Your task to perform on an android device: Clear all items from cart on ebay. Search for razer blade on ebay, select the first entry, and add it to the cart. Image 0: 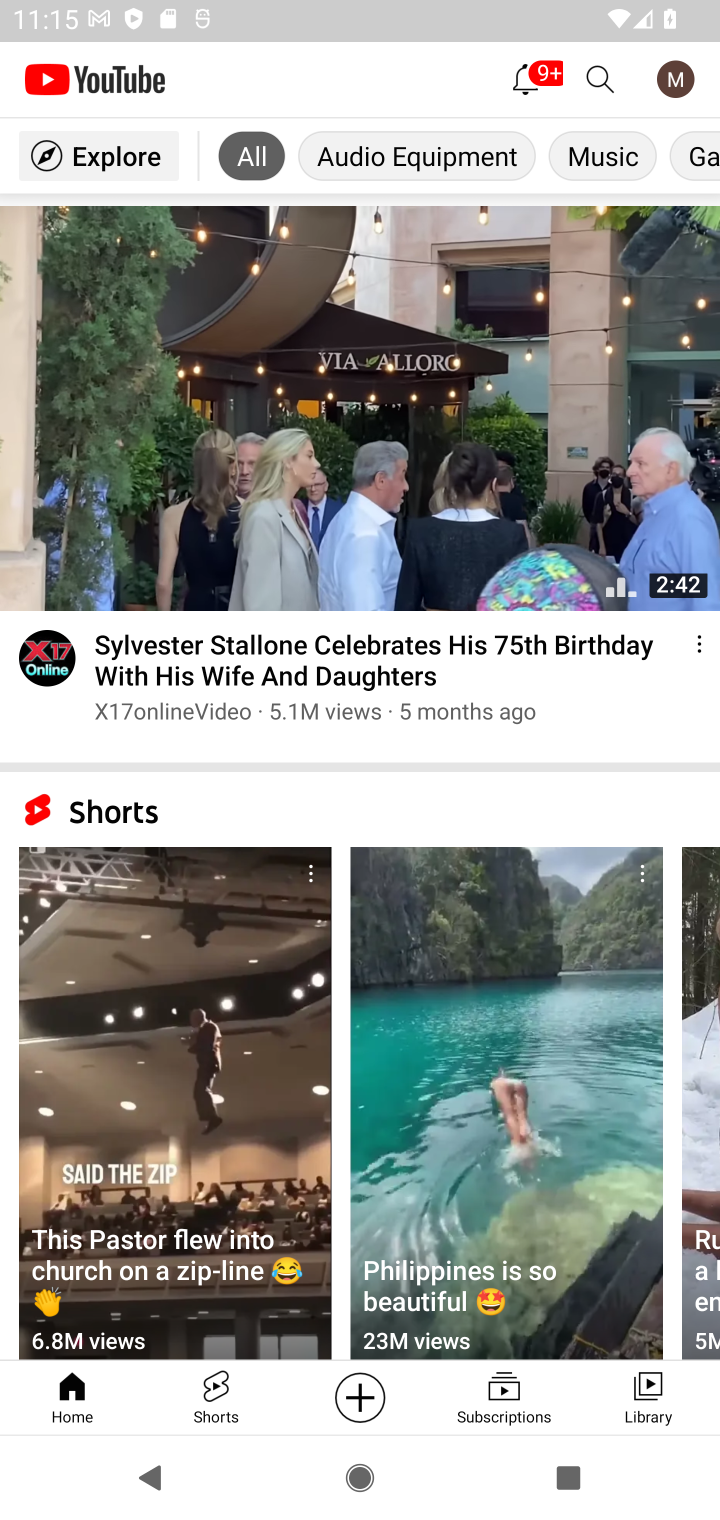
Step 0: press home button
Your task to perform on an android device: Clear all items from cart on ebay. Search for razer blade on ebay, select the first entry, and add it to the cart. Image 1: 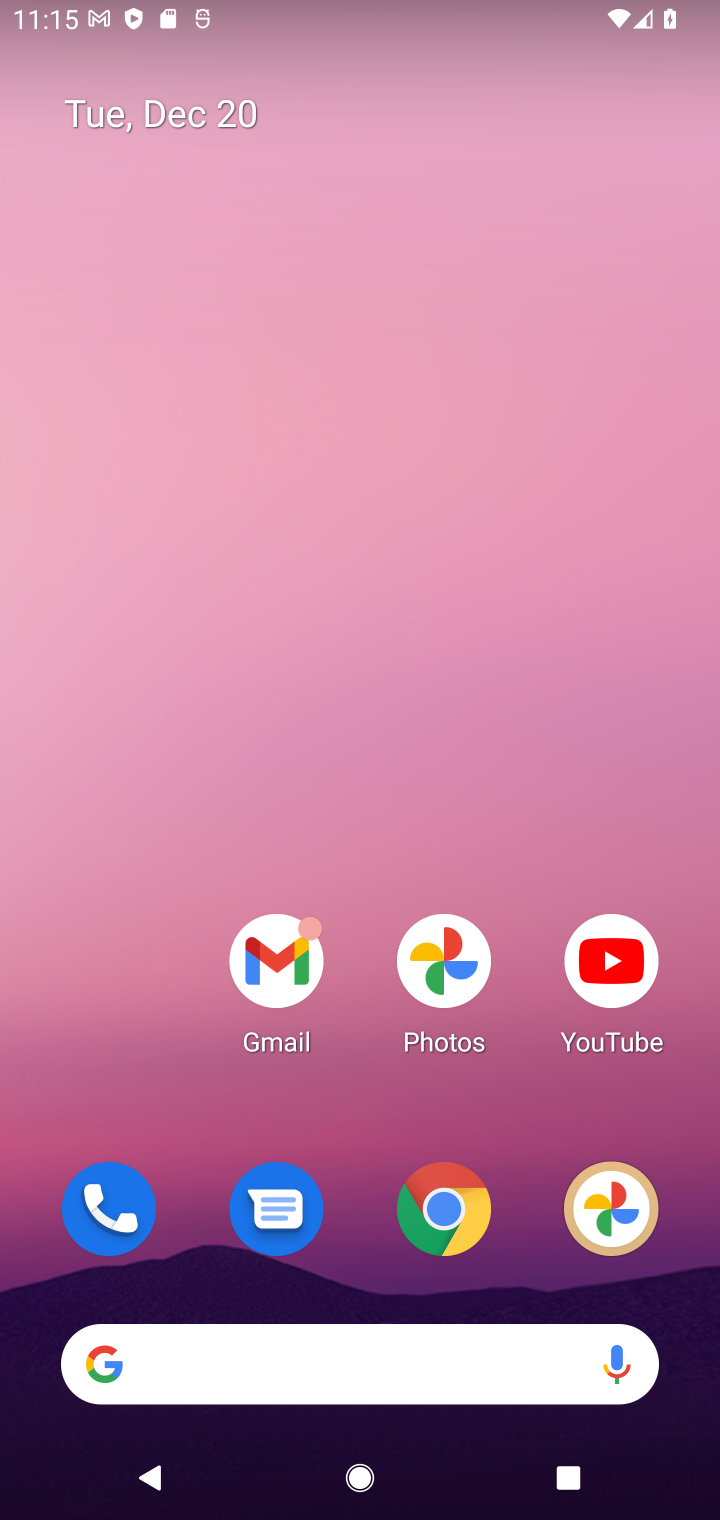
Step 1: click (452, 1211)
Your task to perform on an android device: Clear all items from cart on ebay. Search for razer blade on ebay, select the first entry, and add it to the cart. Image 2: 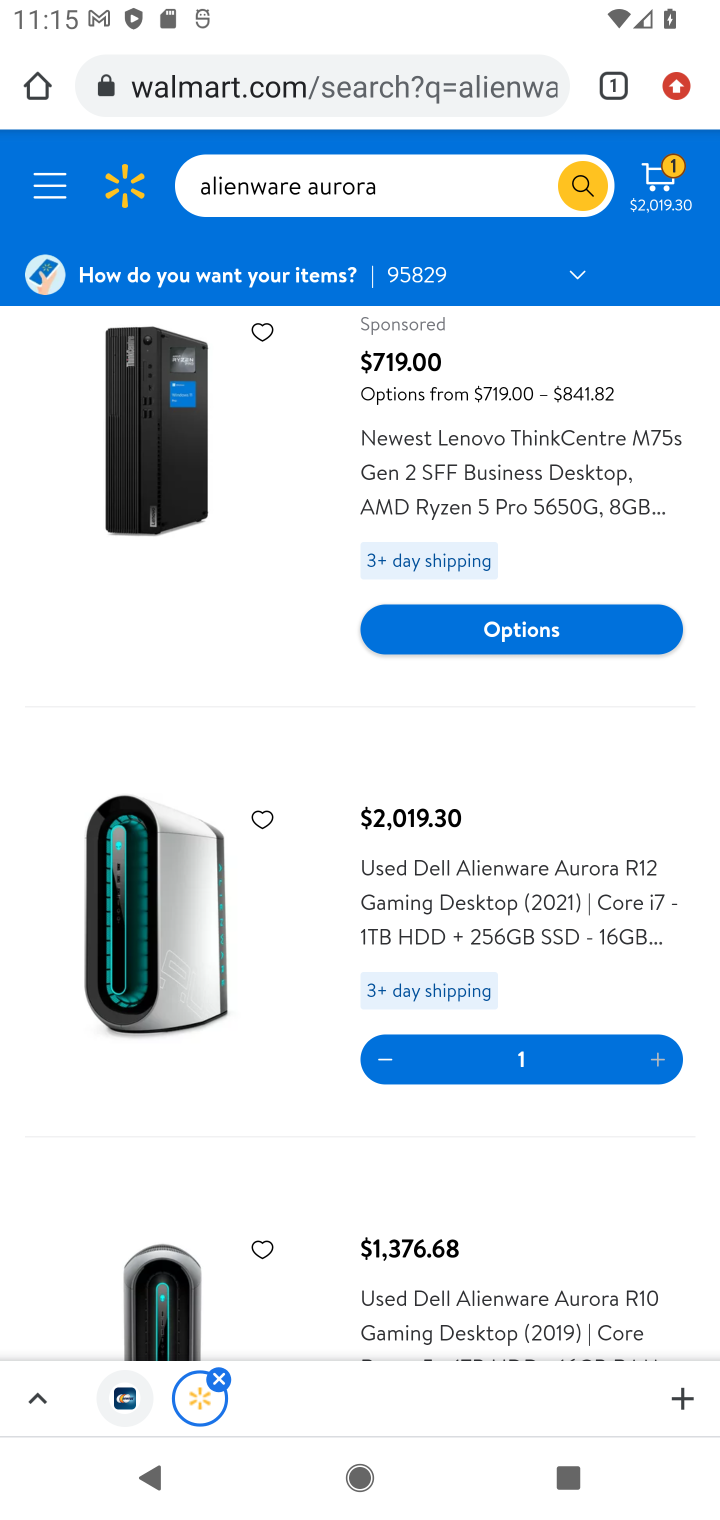
Step 2: click (274, 103)
Your task to perform on an android device: Clear all items from cart on ebay. Search for razer blade on ebay, select the first entry, and add it to the cart. Image 3: 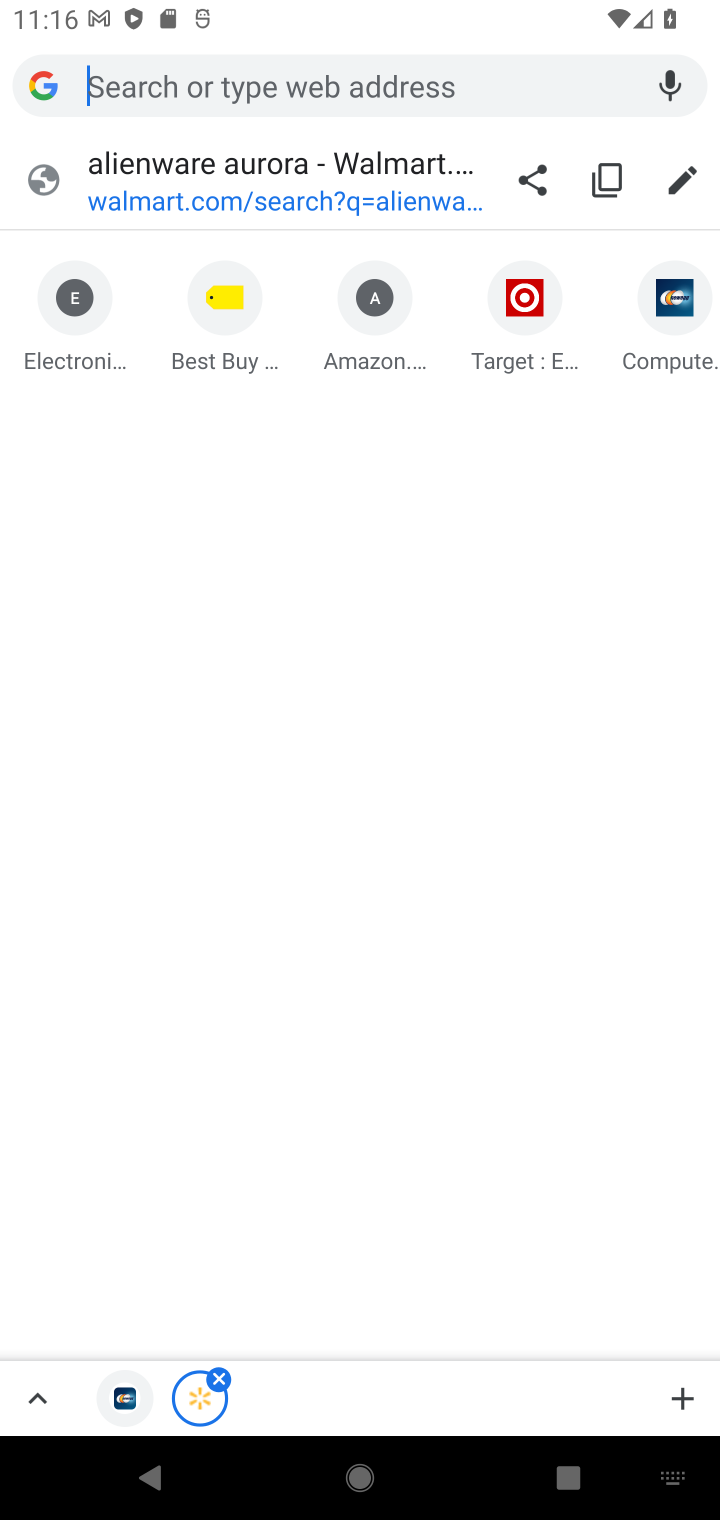
Step 3: type "ebay.com"
Your task to perform on an android device: Clear all items from cart on ebay. Search for razer blade on ebay, select the first entry, and add it to the cart. Image 4: 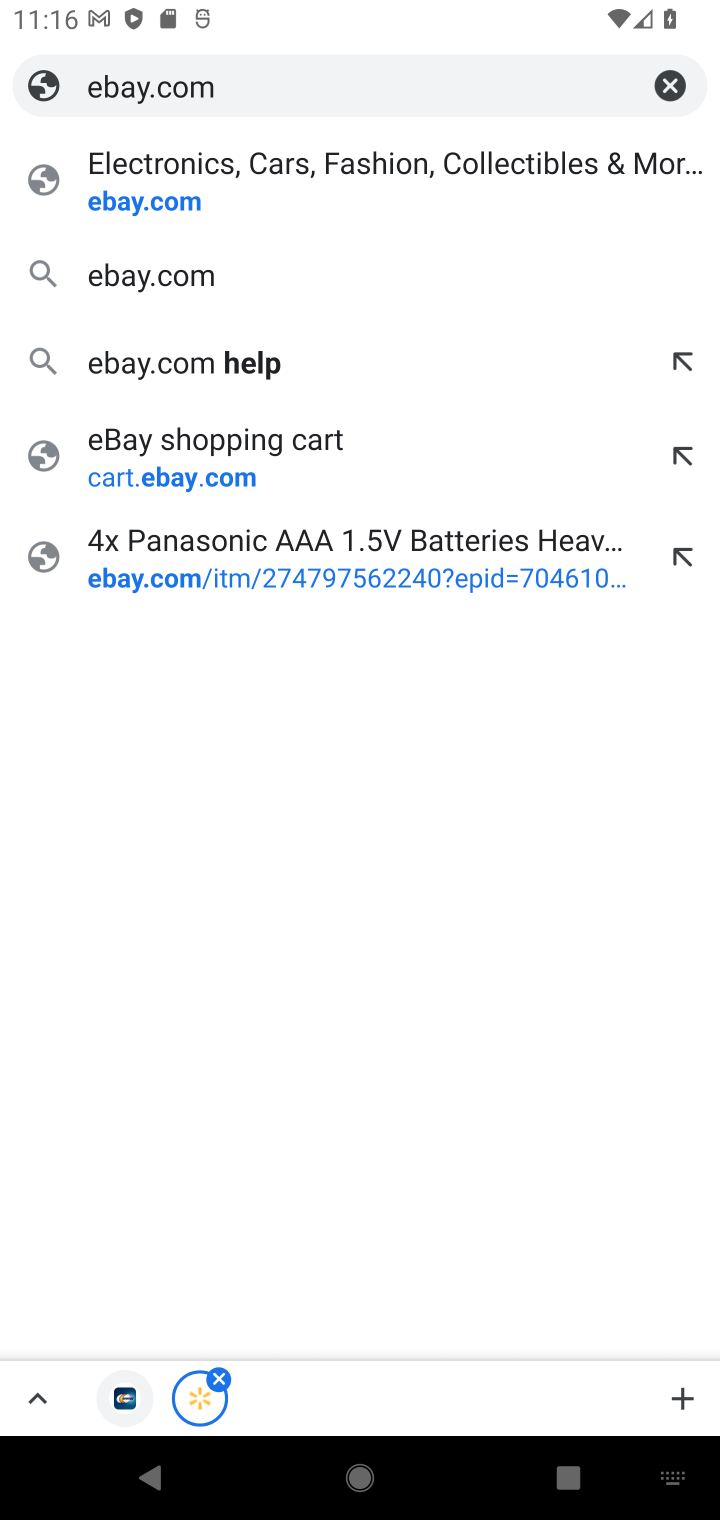
Step 4: click (177, 195)
Your task to perform on an android device: Clear all items from cart on ebay. Search for razer blade on ebay, select the first entry, and add it to the cart. Image 5: 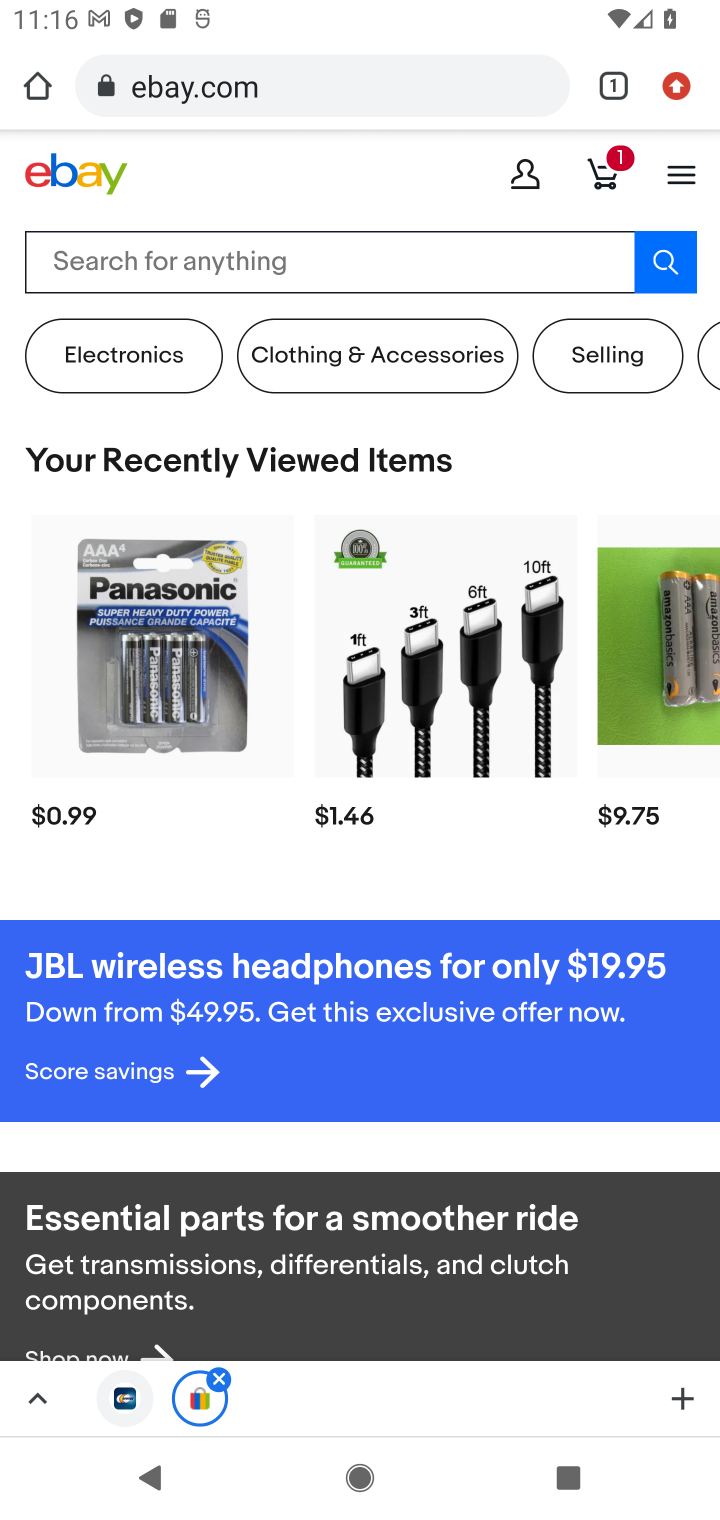
Step 5: click (607, 177)
Your task to perform on an android device: Clear all items from cart on ebay. Search for razer blade on ebay, select the first entry, and add it to the cart. Image 6: 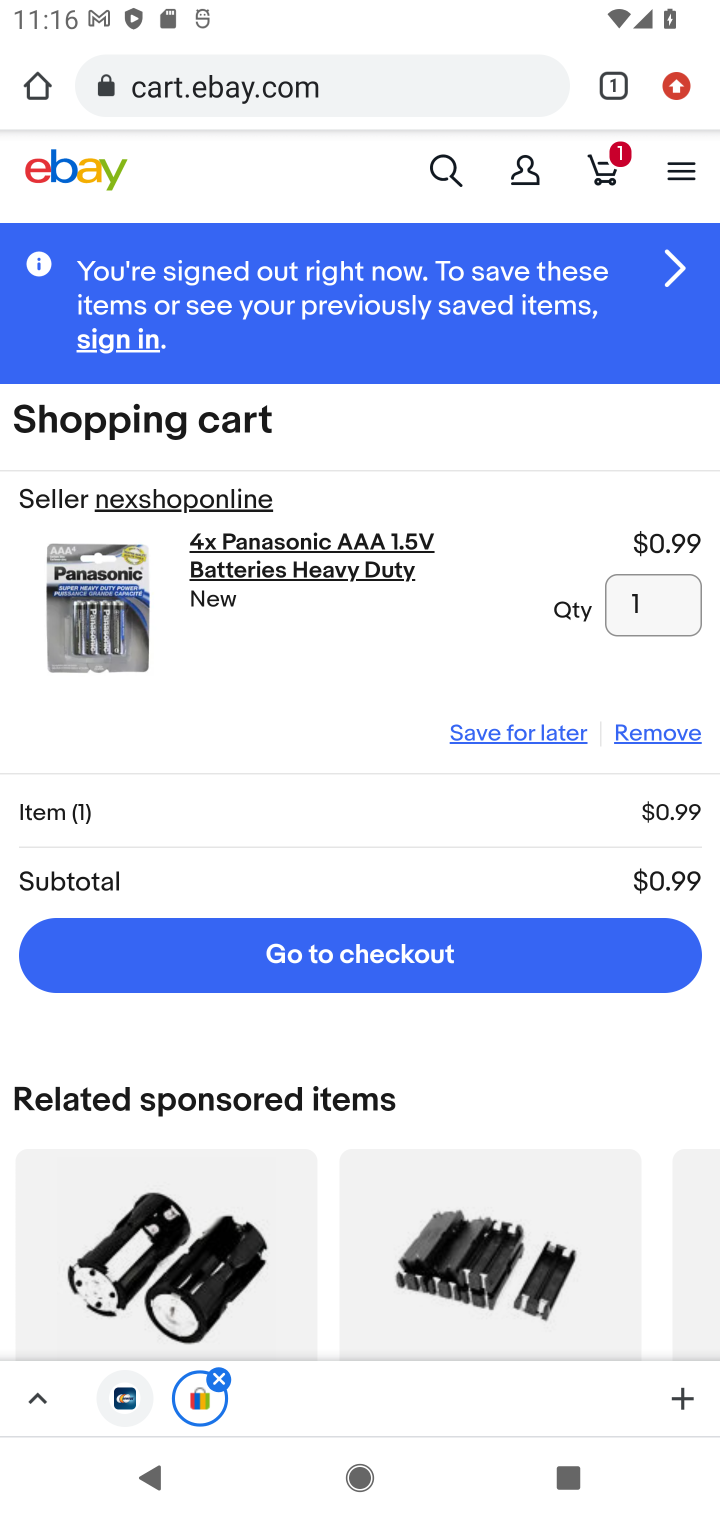
Step 6: click (635, 737)
Your task to perform on an android device: Clear all items from cart on ebay. Search for razer blade on ebay, select the first entry, and add it to the cart. Image 7: 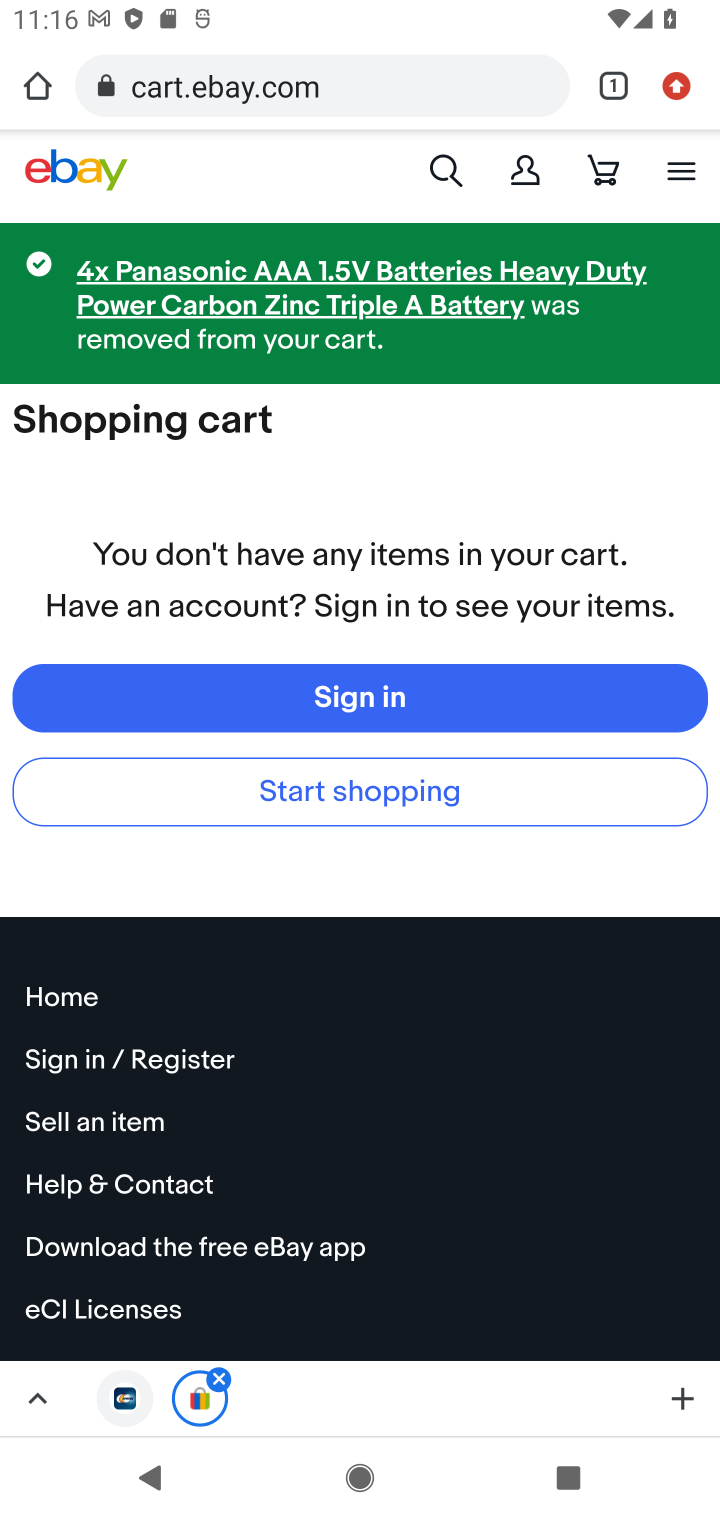
Step 7: click (445, 170)
Your task to perform on an android device: Clear all items from cart on ebay. Search for razer blade on ebay, select the first entry, and add it to the cart. Image 8: 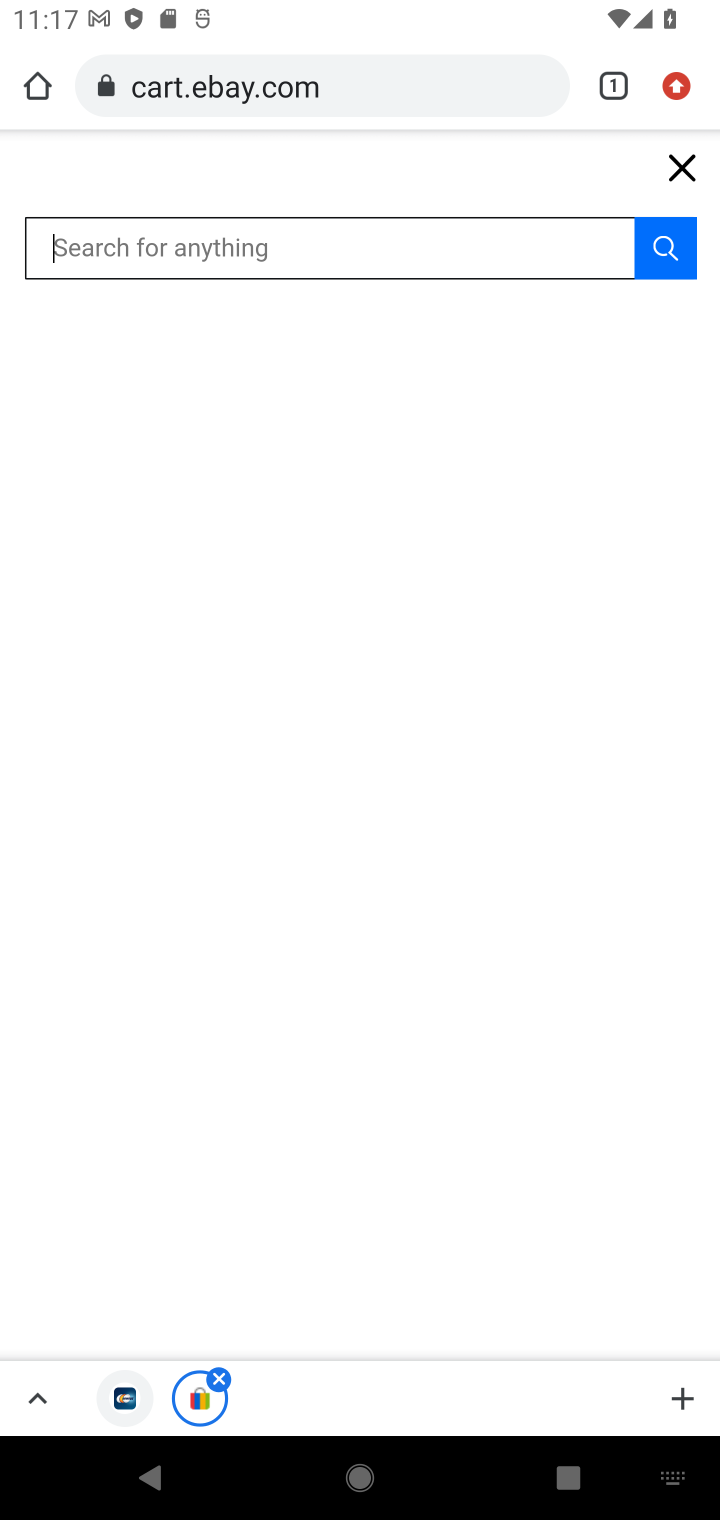
Step 8: type "razer blade "
Your task to perform on an android device: Clear all items from cart on ebay. Search for razer blade on ebay, select the first entry, and add it to the cart. Image 9: 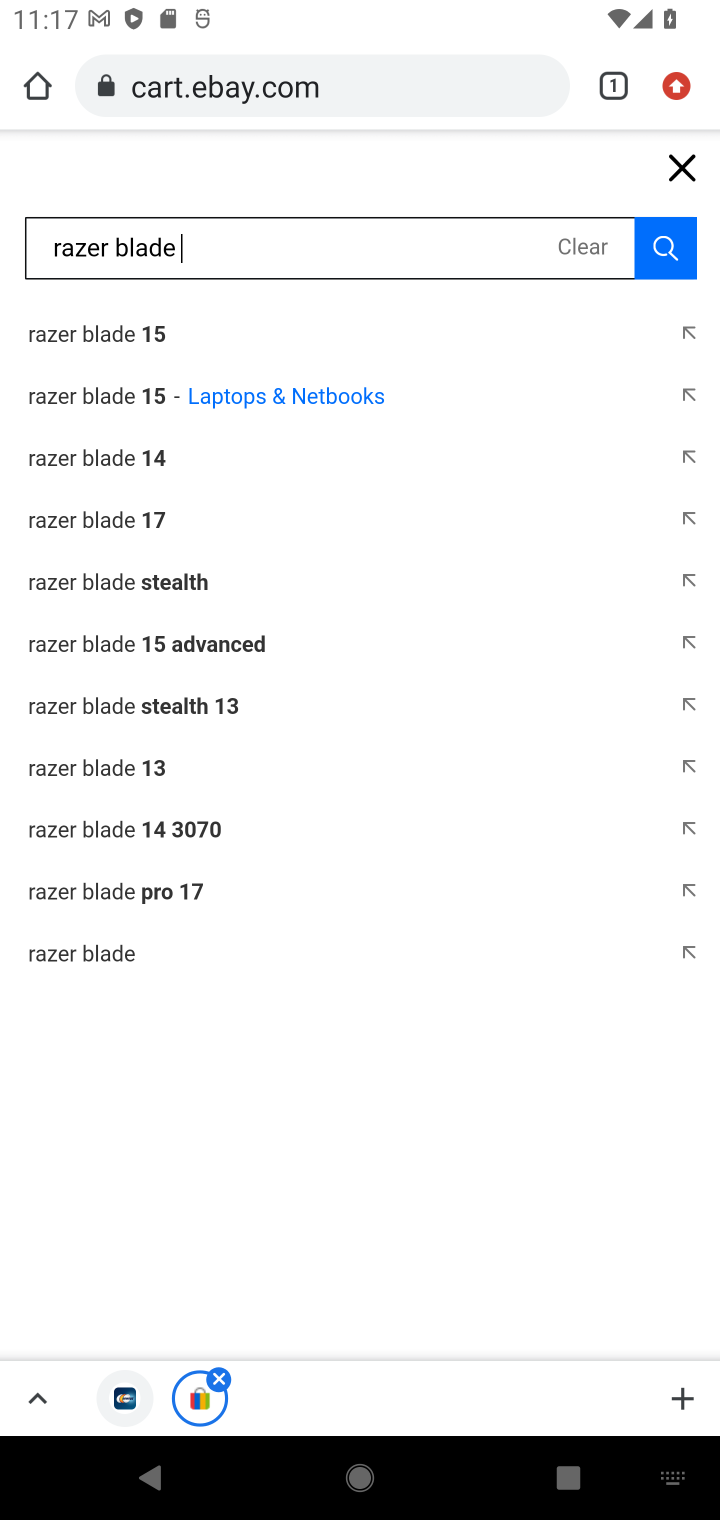
Step 9: click (665, 250)
Your task to perform on an android device: Clear all items from cart on ebay. Search for razer blade on ebay, select the first entry, and add it to the cart. Image 10: 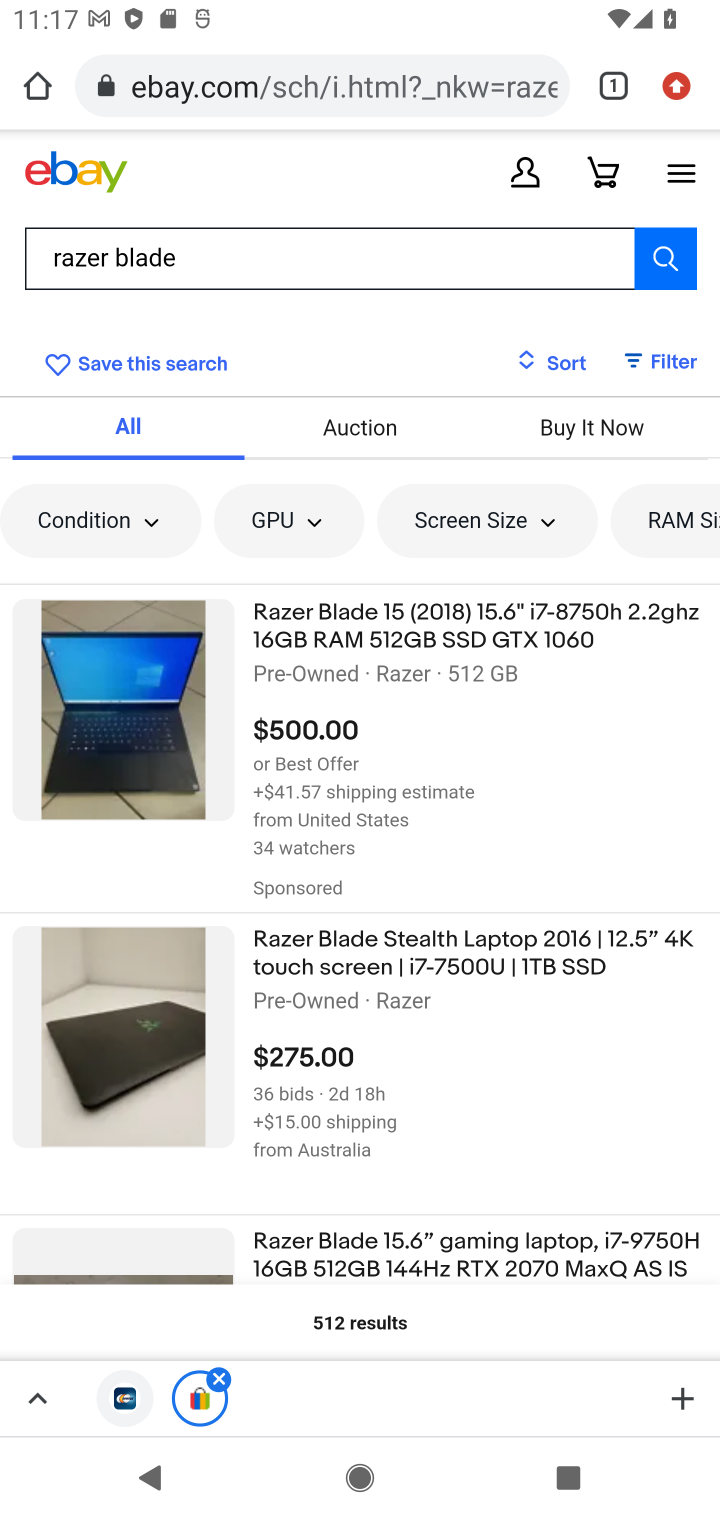
Step 10: click (283, 645)
Your task to perform on an android device: Clear all items from cart on ebay. Search for razer blade on ebay, select the first entry, and add it to the cart. Image 11: 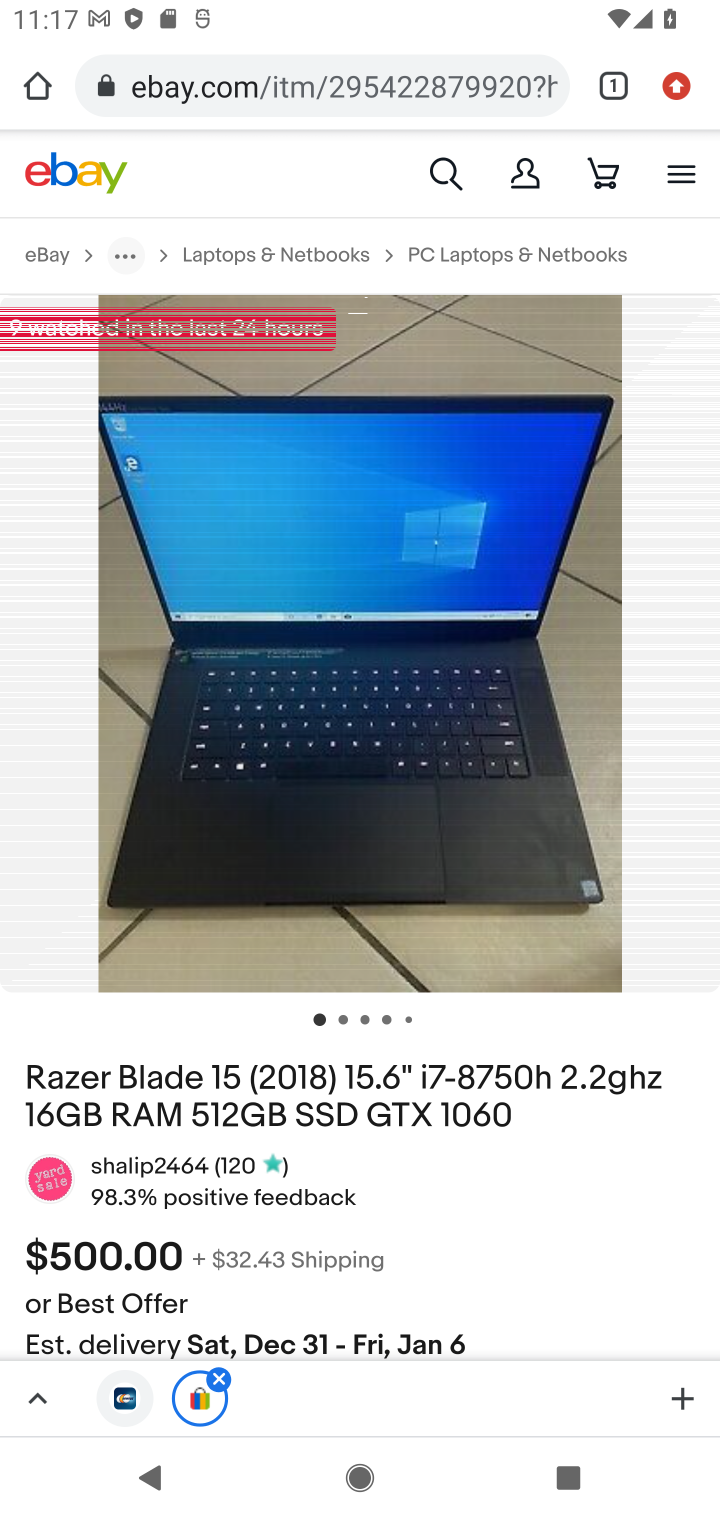
Step 11: drag from (380, 1261) to (333, 609)
Your task to perform on an android device: Clear all items from cart on ebay. Search for razer blade on ebay, select the first entry, and add it to the cart. Image 12: 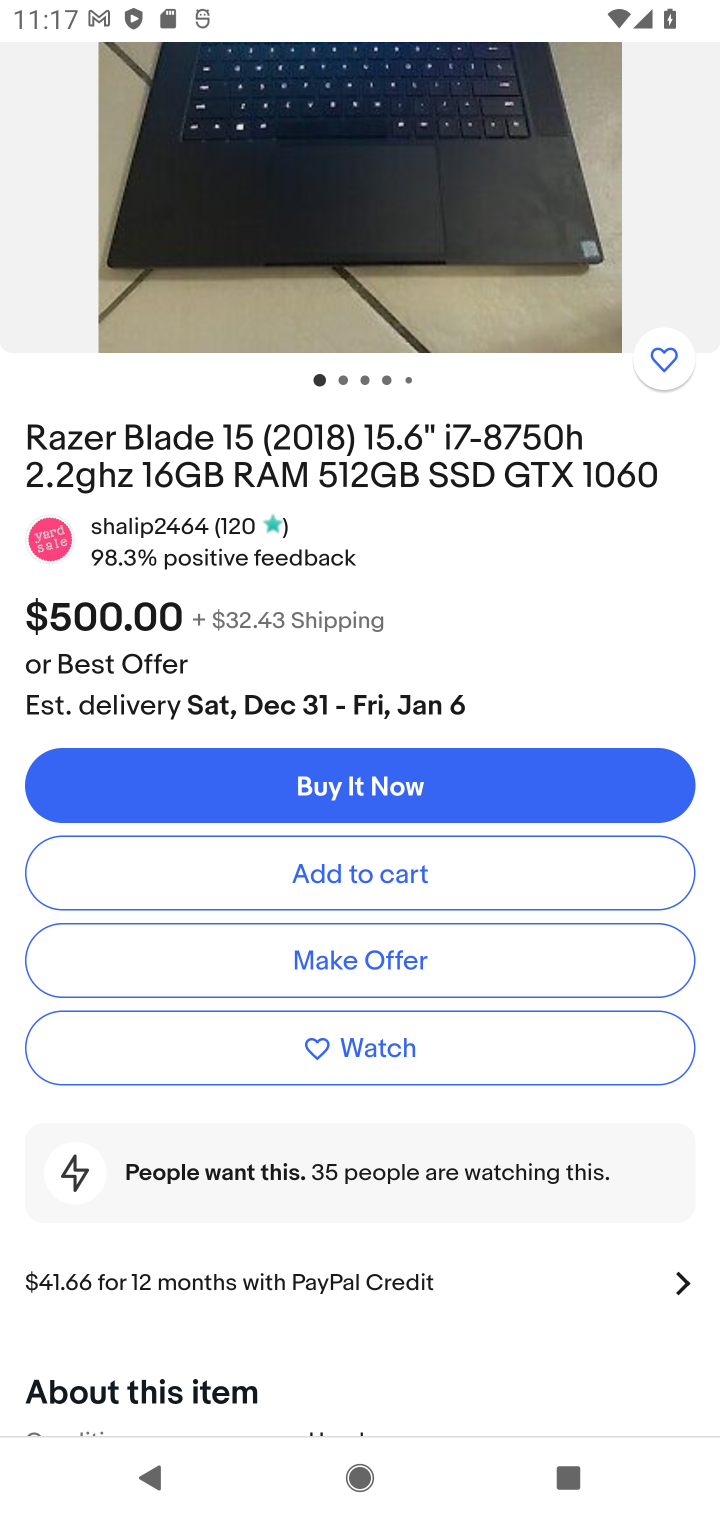
Step 12: click (330, 870)
Your task to perform on an android device: Clear all items from cart on ebay. Search for razer blade on ebay, select the first entry, and add it to the cart. Image 13: 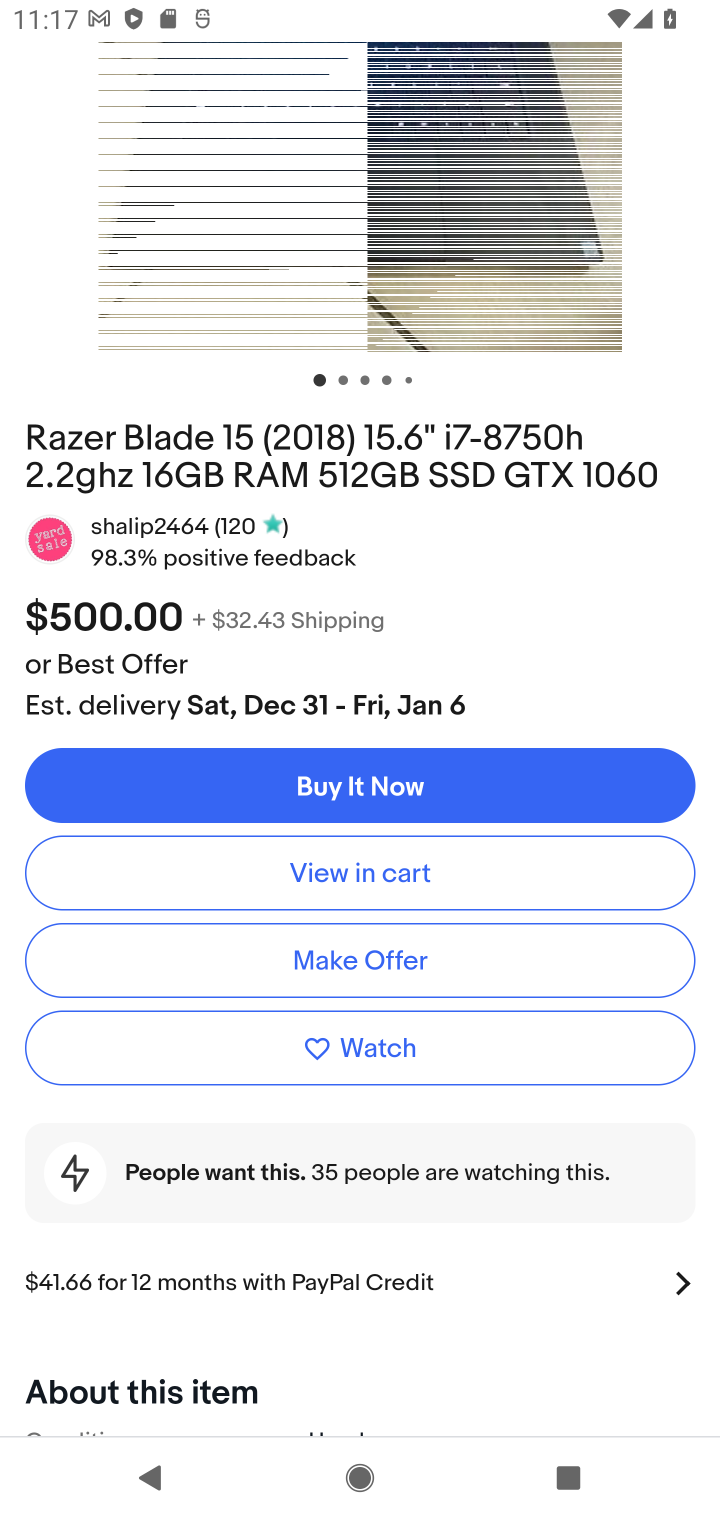
Step 13: task complete